Your task to perform on an android device: toggle javascript in the chrome app Image 0: 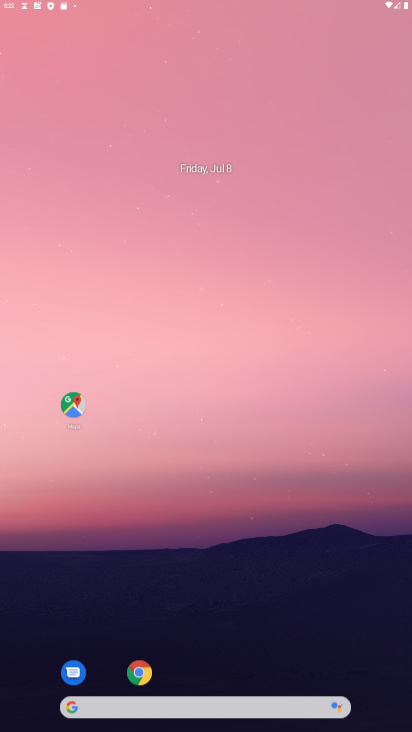
Step 0: click (76, 393)
Your task to perform on an android device: toggle javascript in the chrome app Image 1: 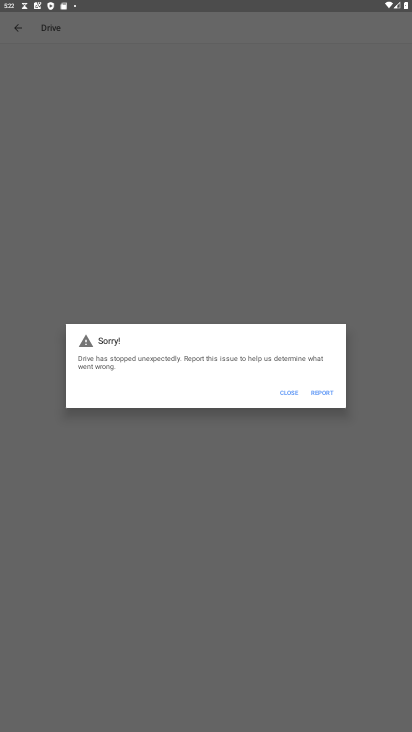
Step 1: click (286, 398)
Your task to perform on an android device: toggle javascript in the chrome app Image 2: 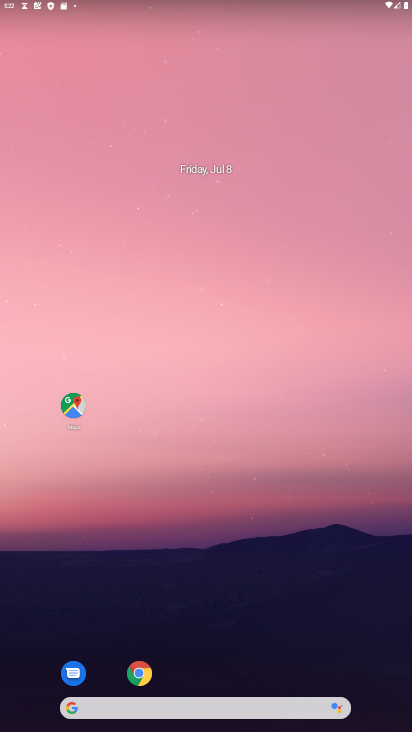
Step 2: click (77, 410)
Your task to perform on an android device: toggle javascript in the chrome app Image 3: 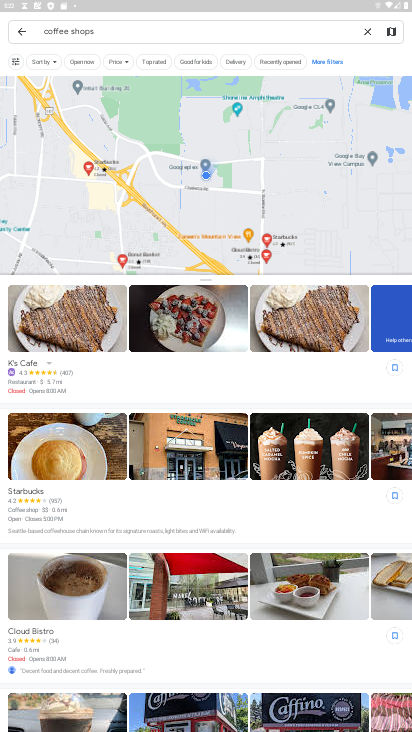
Step 3: press back button
Your task to perform on an android device: toggle javascript in the chrome app Image 4: 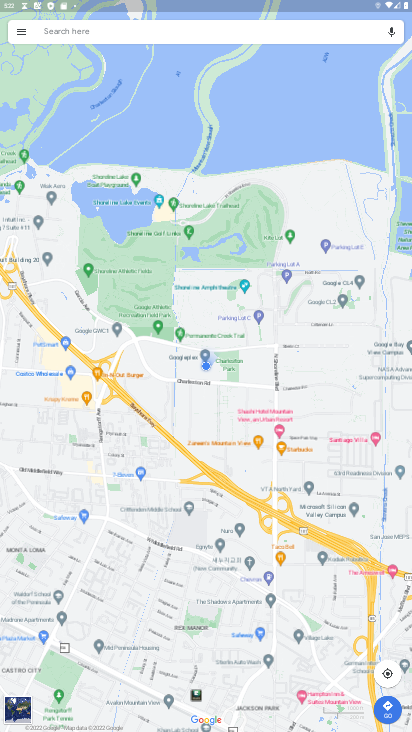
Step 4: press back button
Your task to perform on an android device: toggle javascript in the chrome app Image 5: 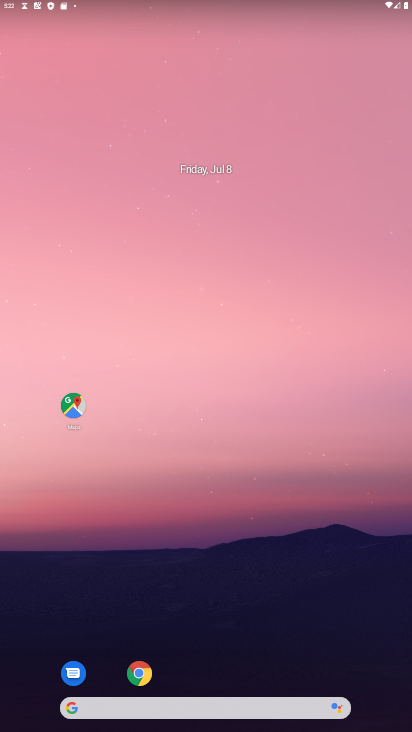
Step 5: click (144, 678)
Your task to perform on an android device: toggle javascript in the chrome app Image 6: 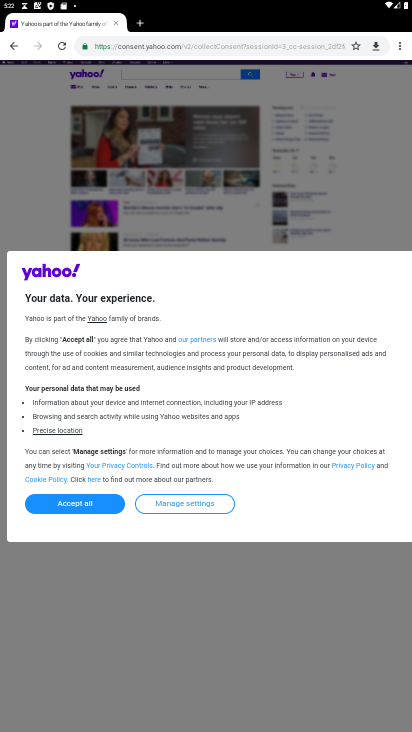
Step 6: click (401, 46)
Your task to perform on an android device: toggle javascript in the chrome app Image 7: 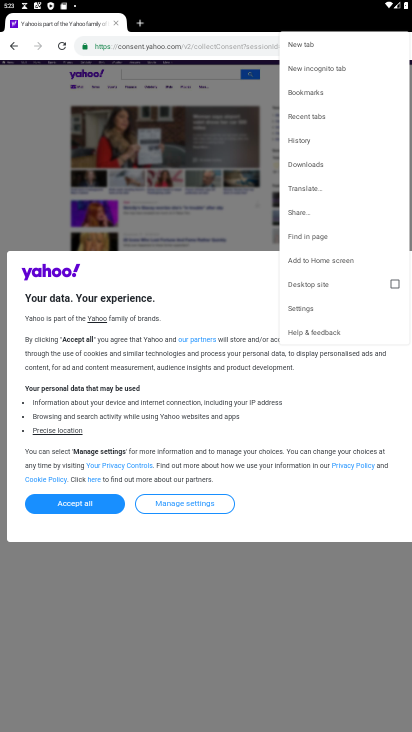
Step 7: click (293, 307)
Your task to perform on an android device: toggle javascript in the chrome app Image 8: 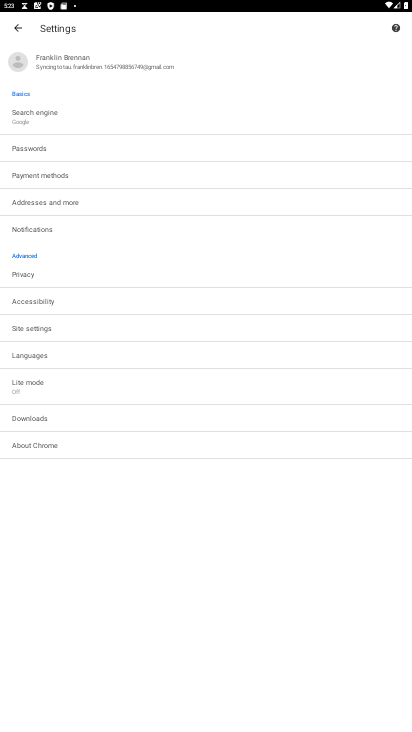
Step 8: click (38, 328)
Your task to perform on an android device: toggle javascript in the chrome app Image 9: 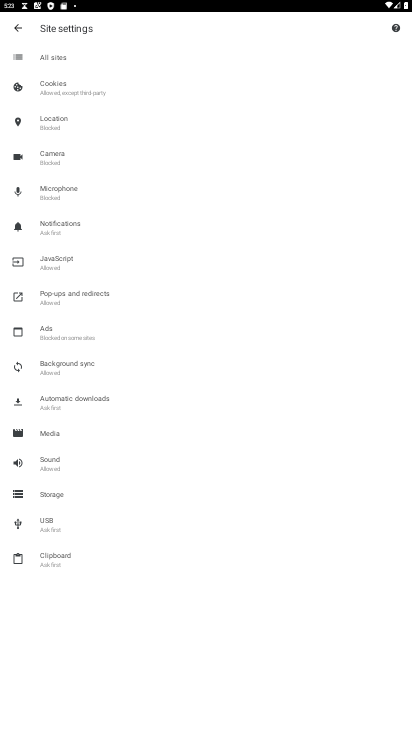
Step 9: click (65, 262)
Your task to perform on an android device: toggle javascript in the chrome app Image 10: 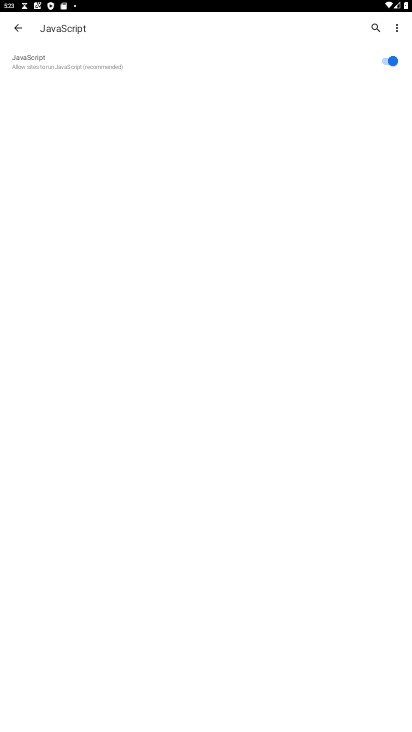
Step 10: click (385, 63)
Your task to perform on an android device: toggle javascript in the chrome app Image 11: 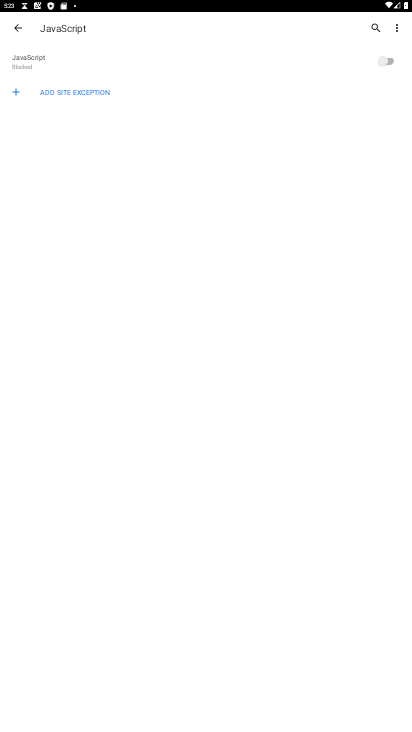
Step 11: task complete